Your task to perform on an android device: check battery use Image 0: 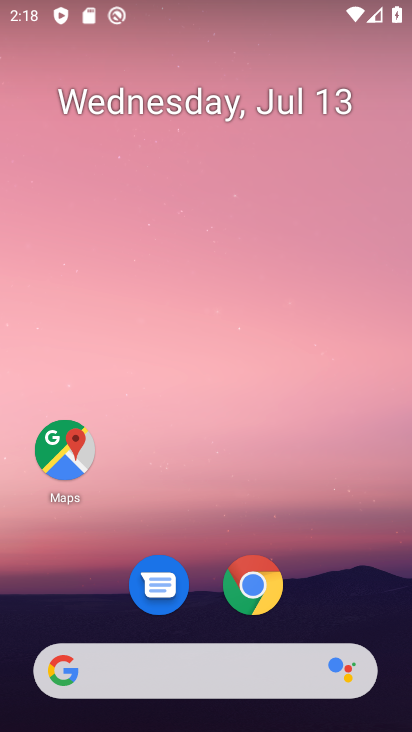
Step 0: press home button
Your task to perform on an android device: check battery use Image 1: 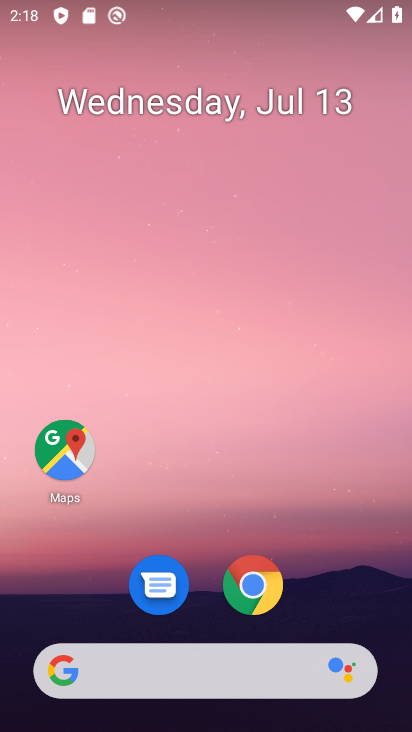
Step 1: drag from (207, 676) to (314, 149)
Your task to perform on an android device: check battery use Image 2: 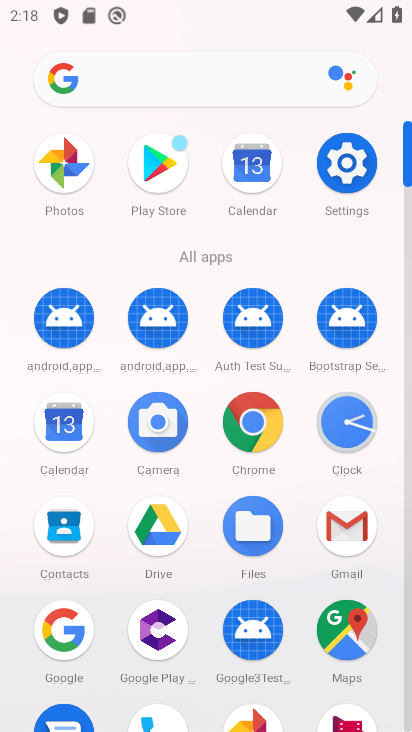
Step 2: click (356, 166)
Your task to perform on an android device: check battery use Image 3: 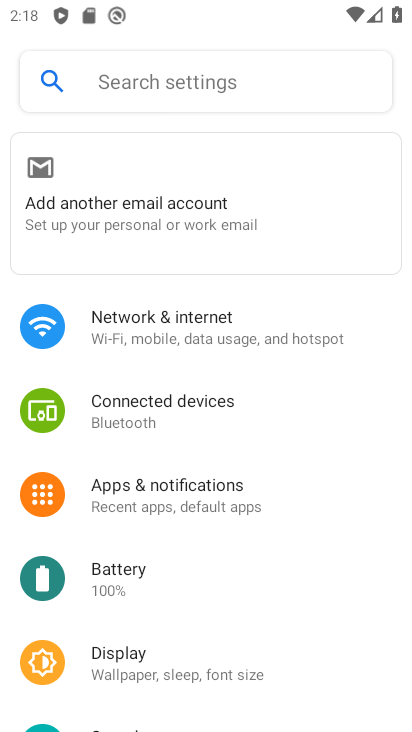
Step 3: click (138, 579)
Your task to perform on an android device: check battery use Image 4: 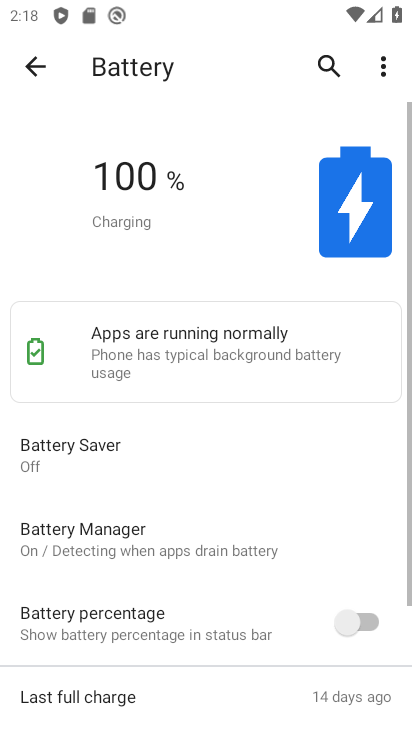
Step 4: click (383, 65)
Your task to perform on an android device: check battery use Image 5: 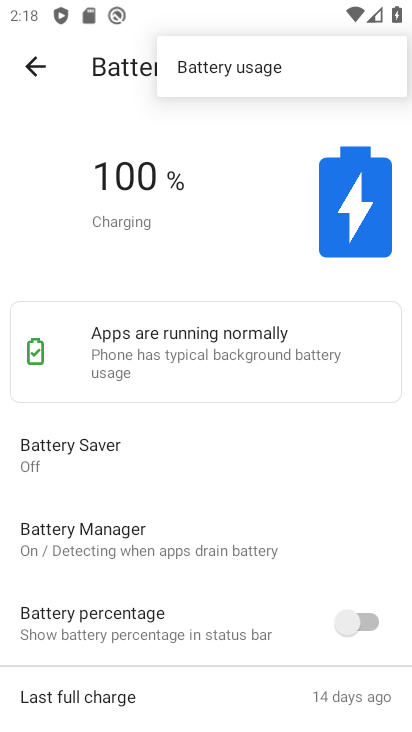
Step 5: click (233, 71)
Your task to perform on an android device: check battery use Image 6: 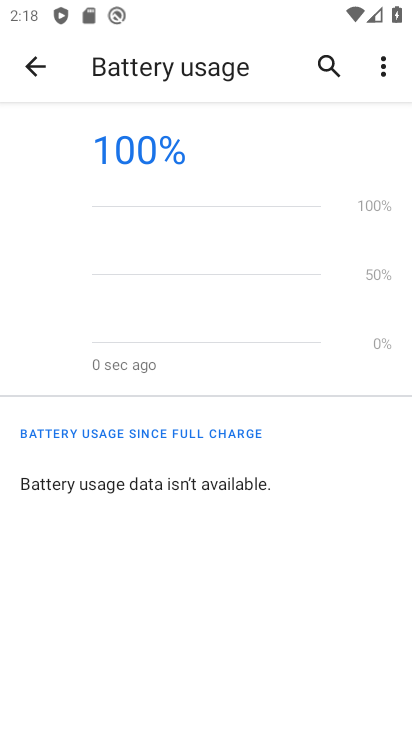
Step 6: task complete